Your task to perform on an android device: Open Youtube and go to the subscriptions tab Image 0: 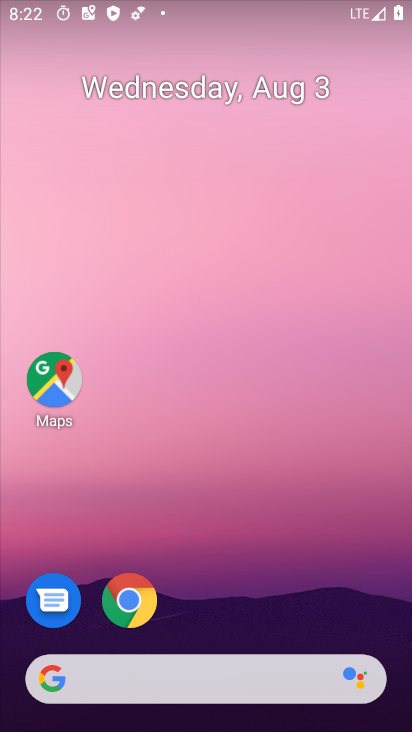
Step 0: drag from (207, 626) to (185, 2)
Your task to perform on an android device: Open Youtube and go to the subscriptions tab Image 1: 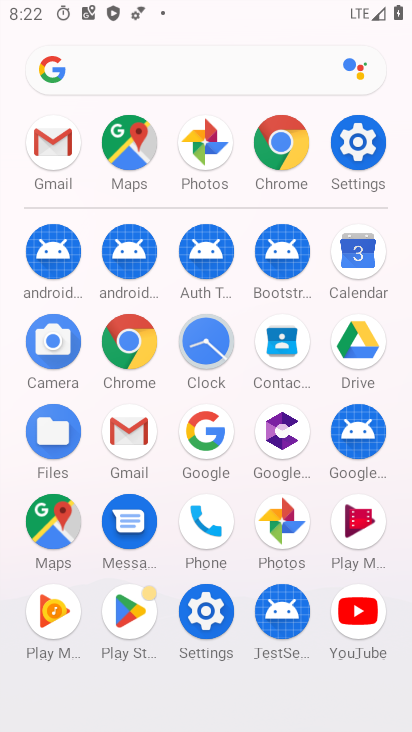
Step 1: click (360, 627)
Your task to perform on an android device: Open Youtube and go to the subscriptions tab Image 2: 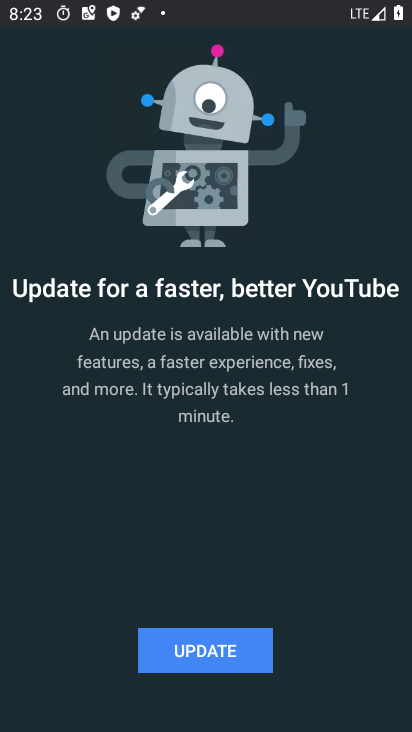
Step 2: click (253, 654)
Your task to perform on an android device: Open Youtube and go to the subscriptions tab Image 3: 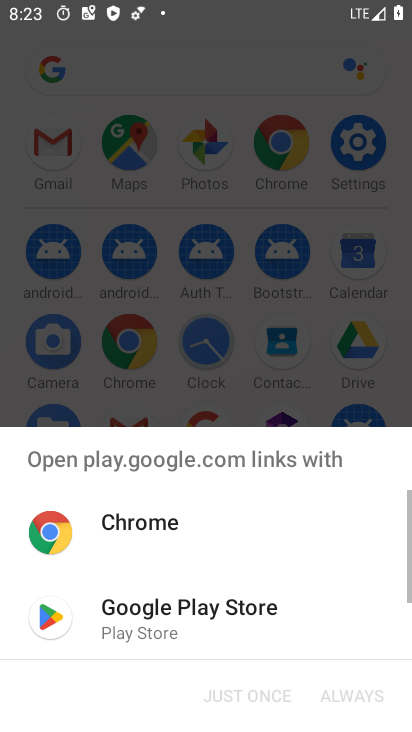
Step 3: click (170, 609)
Your task to perform on an android device: Open Youtube and go to the subscriptions tab Image 4: 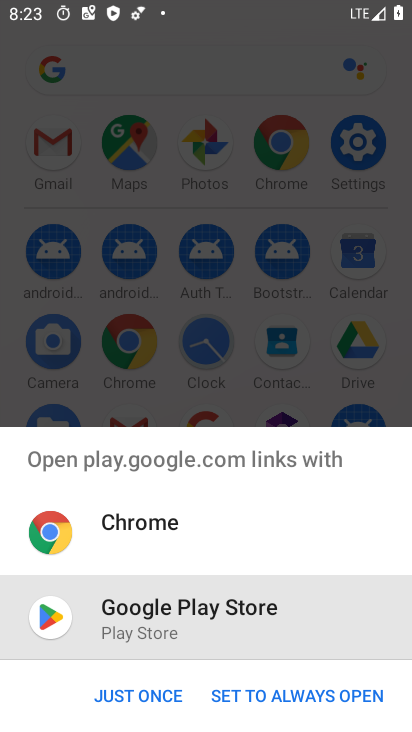
Step 4: click (126, 698)
Your task to perform on an android device: Open Youtube and go to the subscriptions tab Image 5: 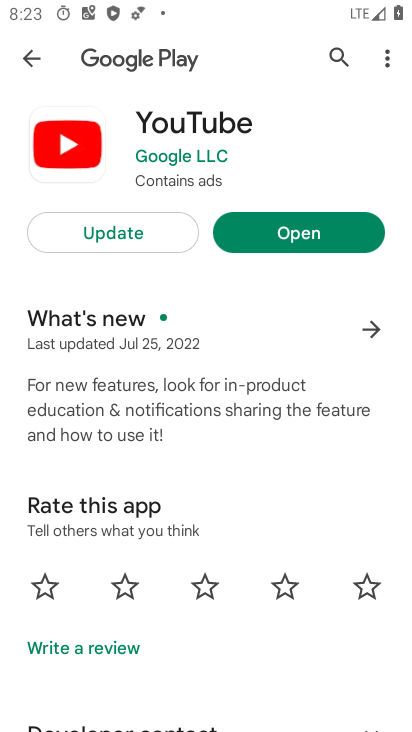
Step 5: click (134, 238)
Your task to perform on an android device: Open Youtube and go to the subscriptions tab Image 6: 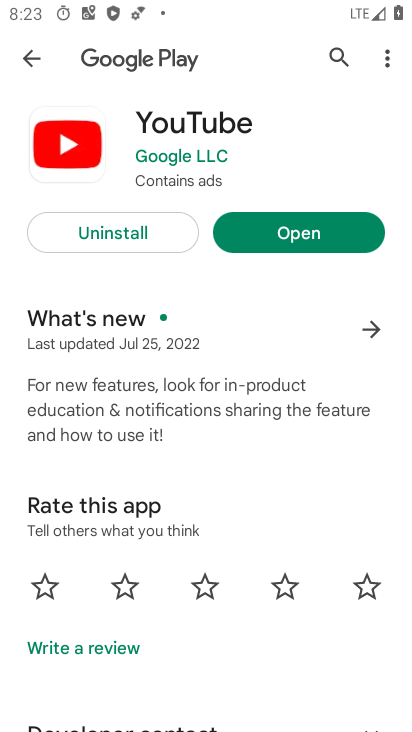
Step 6: click (321, 233)
Your task to perform on an android device: Open Youtube and go to the subscriptions tab Image 7: 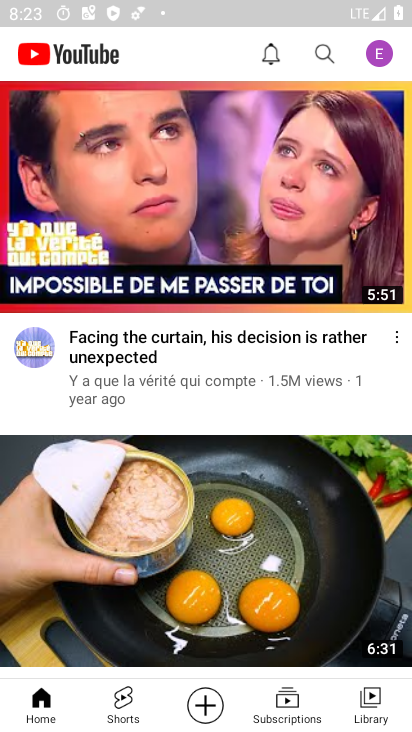
Step 7: click (292, 689)
Your task to perform on an android device: Open Youtube and go to the subscriptions tab Image 8: 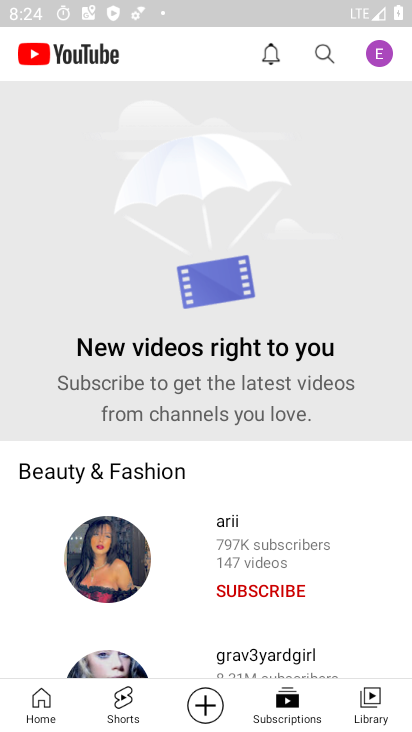
Step 8: task complete